Your task to perform on an android device: Go to CNN.com Image 0: 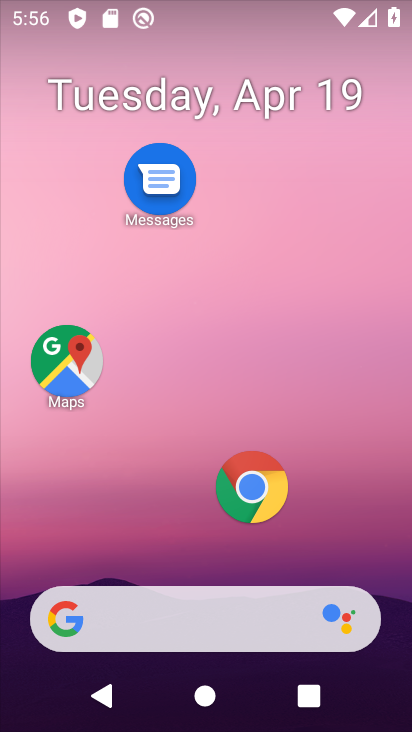
Step 0: click (248, 482)
Your task to perform on an android device: Go to CNN.com Image 1: 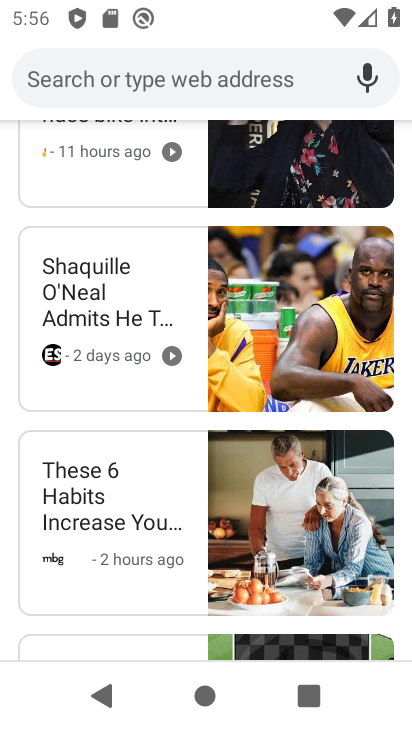
Step 1: click (159, 80)
Your task to perform on an android device: Go to CNN.com Image 2: 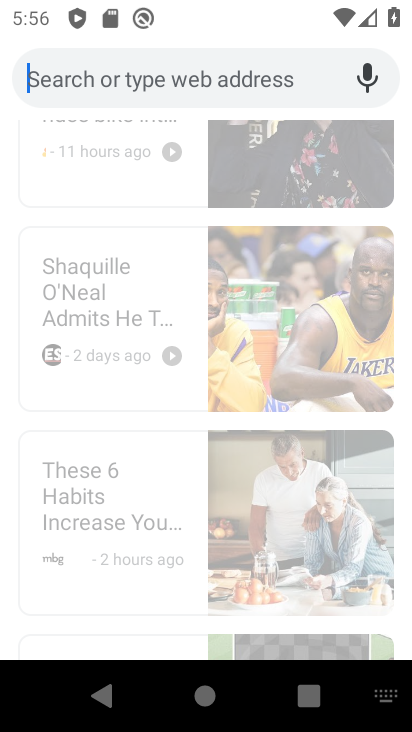
Step 2: type "cnn.com"
Your task to perform on an android device: Go to CNN.com Image 3: 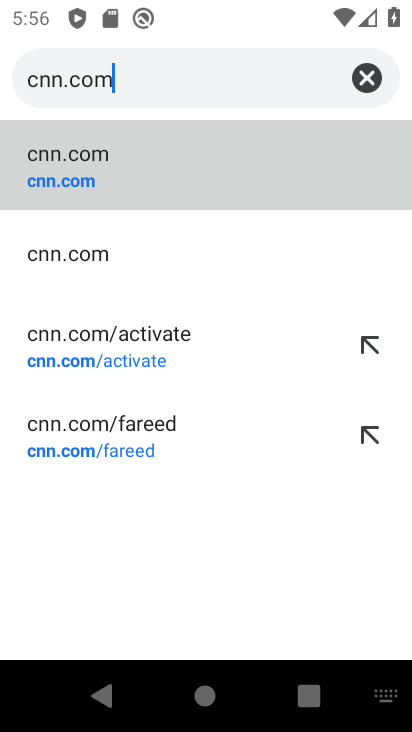
Step 3: click (112, 167)
Your task to perform on an android device: Go to CNN.com Image 4: 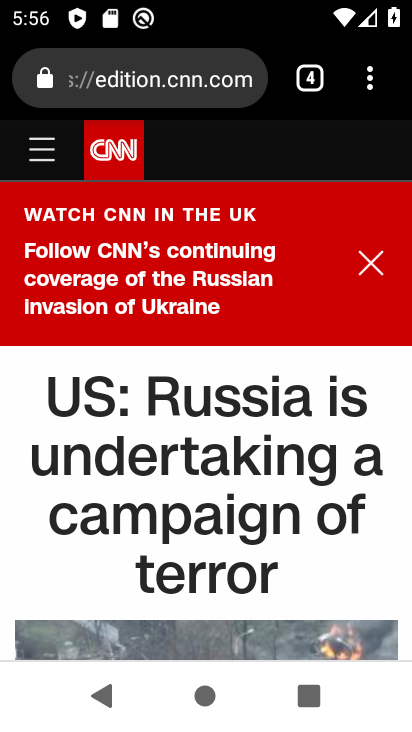
Step 4: task complete